Your task to perform on an android device: Show me popular videos on Youtube Image 0: 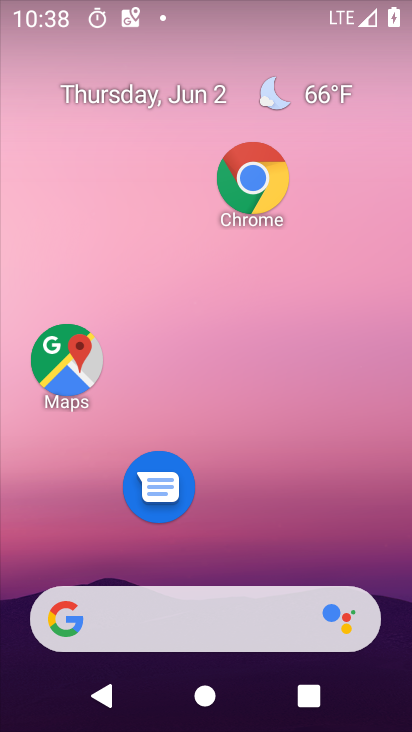
Step 0: drag from (226, 727) to (233, 10)
Your task to perform on an android device: Show me popular videos on Youtube Image 1: 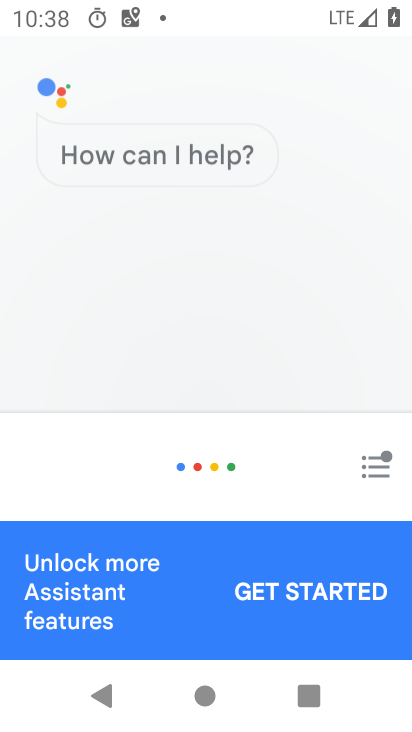
Step 1: press home button
Your task to perform on an android device: Show me popular videos on Youtube Image 2: 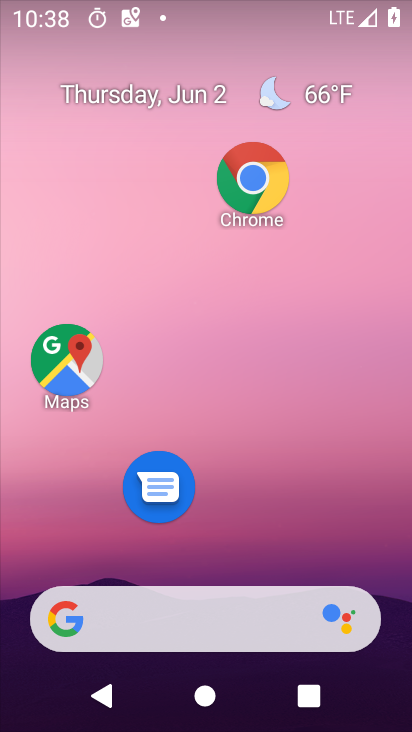
Step 2: drag from (233, 725) to (234, 1)
Your task to perform on an android device: Show me popular videos on Youtube Image 3: 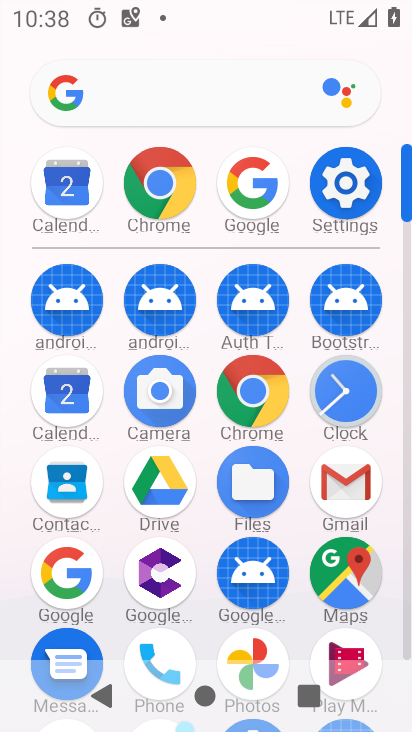
Step 3: drag from (200, 648) to (207, 206)
Your task to perform on an android device: Show me popular videos on Youtube Image 4: 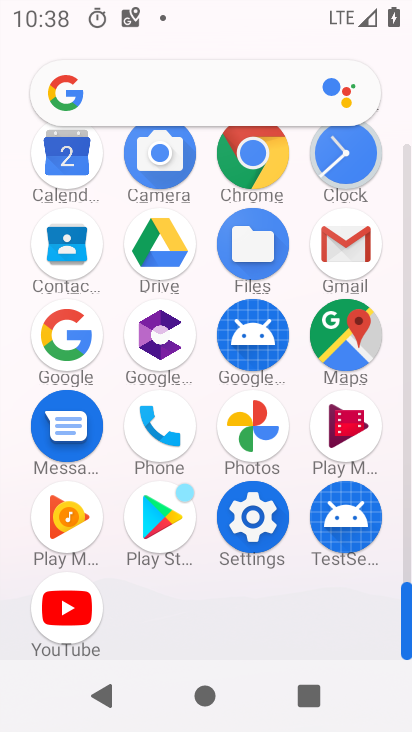
Step 4: click (70, 608)
Your task to perform on an android device: Show me popular videos on Youtube Image 5: 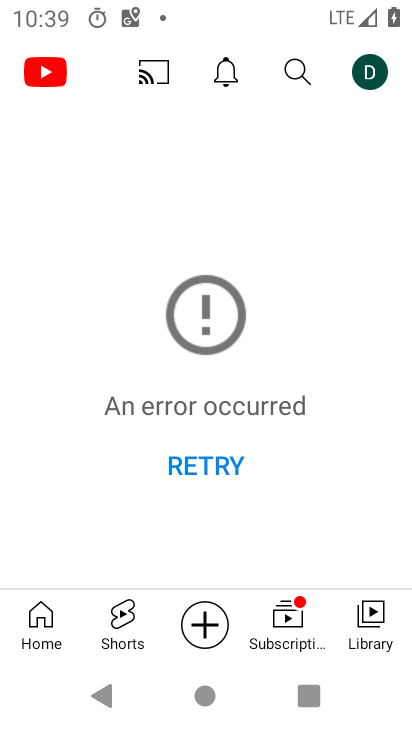
Step 5: click (292, 64)
Your task to perform on an android device: Show me popular videos on Youtube Image 6: 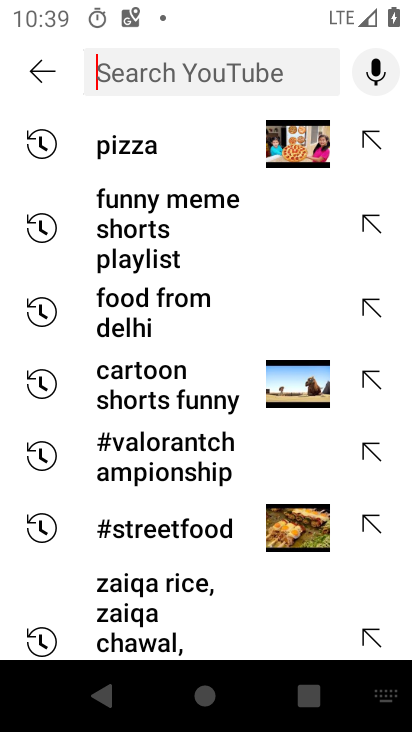
Step 6: type "popular videos on youtube"
Your task to perform on an android device: Show me popular videos on Youtube Image 7: 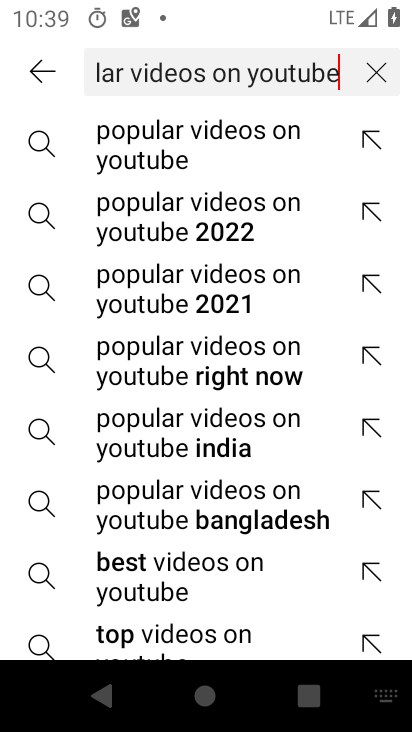
Step 7: click (172, 140)
Your task to perform on an android device: Show me popular videos on Youtube Image 8: 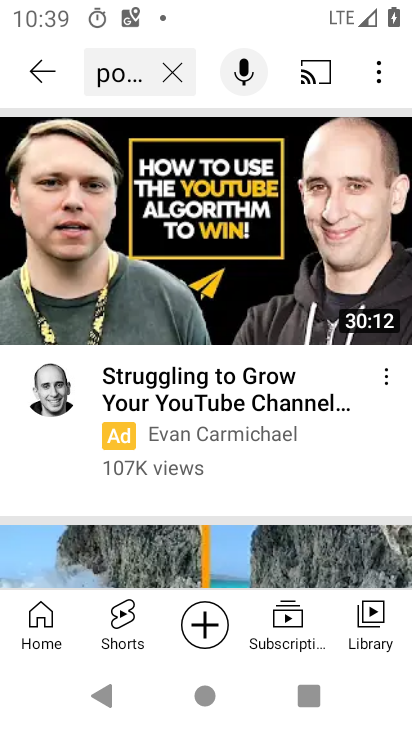
Step 8: task complete